Your task to perform on an android device: Open Chrome and go to settings Image 0: 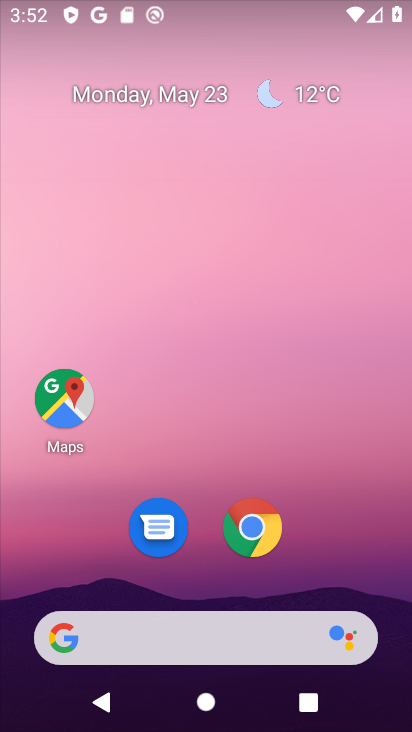
Step 0: press home button
Your task to perform on an android device: Open Chrome and go to settings Image 1: 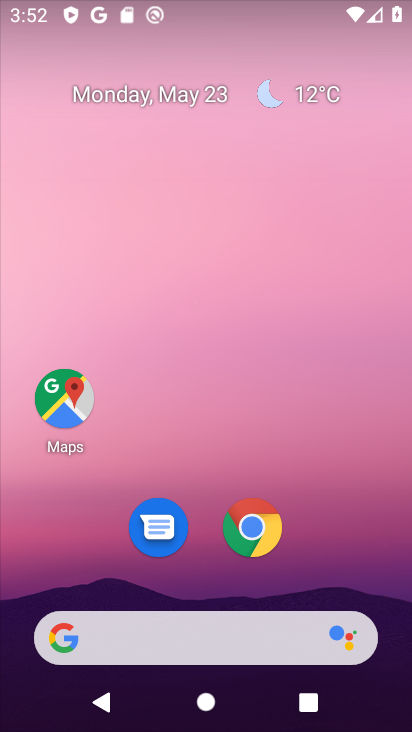
Step 1: drag from (200, 588) to (217, 22)
Your task to perform on an android device: Open Chrome and go to settings Image 2: 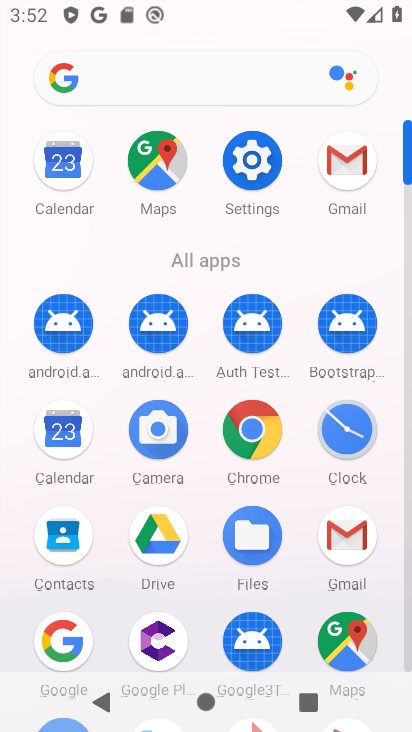
Step 2: click (252, 154)
Your task to perform on an android device: Open Chrome and go to settings Image 3: 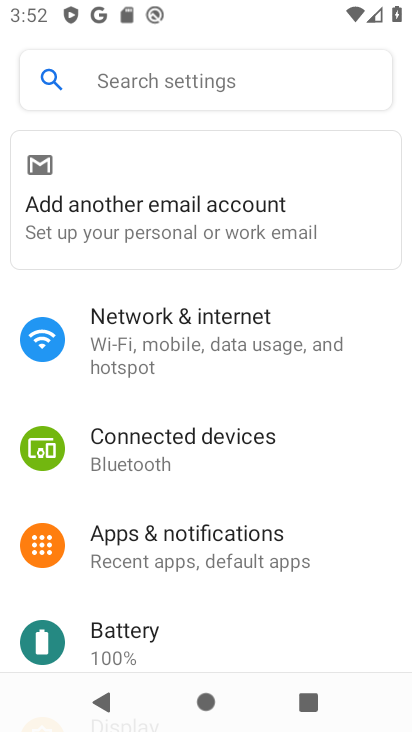
Step 3: press home button
Your task to perform on an android device: Open Chrome and go to settings Image 4: 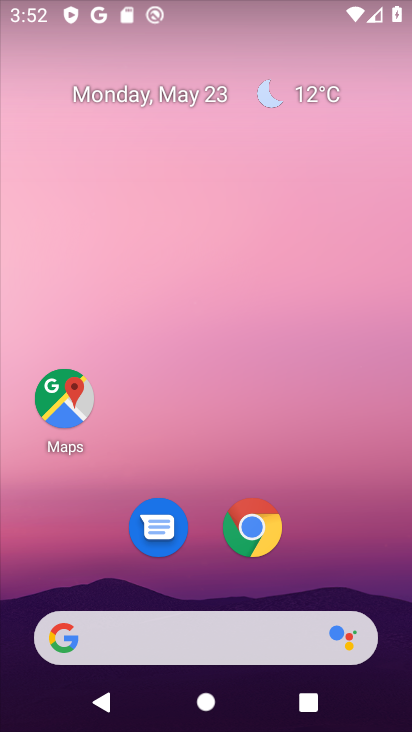
Step 4: click (246, 524)
Your task to perform on an android device: Open Chrome and go to settings Image 5: 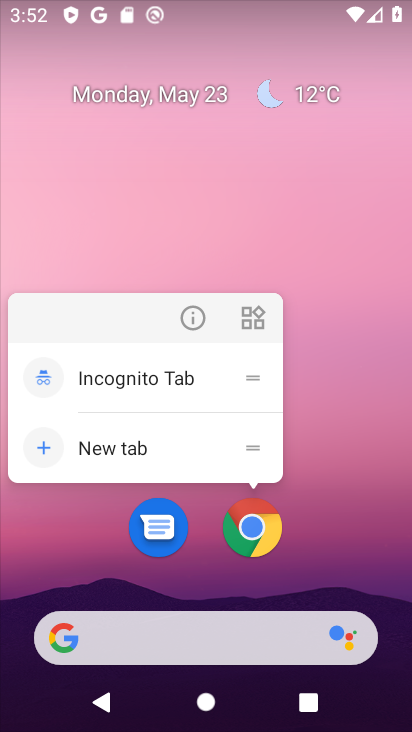
Step 5: click (249, 519)
Your task to perform on an android device: Open Chrome and go to settings Image 6: 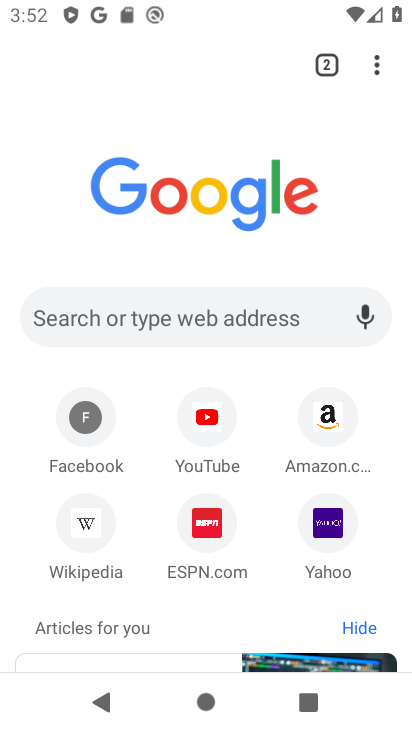
Step 6: click (376, 60)
Your task to perform on an android device: Open Chrome and go to settings Image 7: 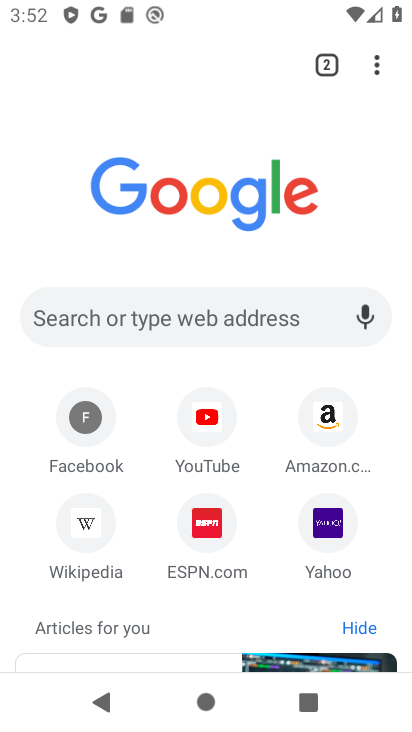
Step 7: click (376, 60)
Your task to perform on an android device: Open Chrome and go to settings Image 8: 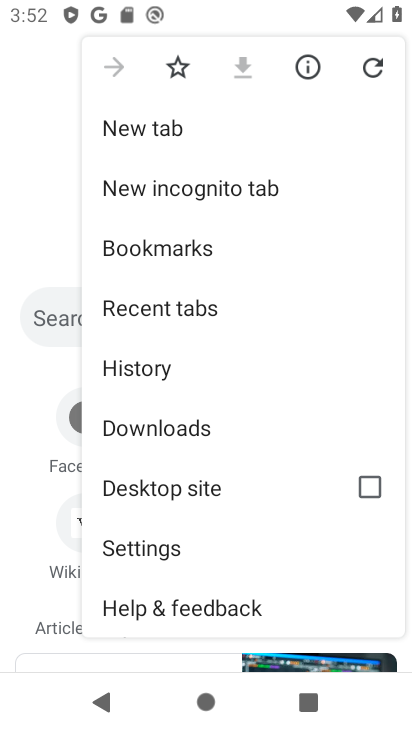
Step 8: click (186, 547)
Your task to perform on an android device: Open Chrome and go to settings Image 9: 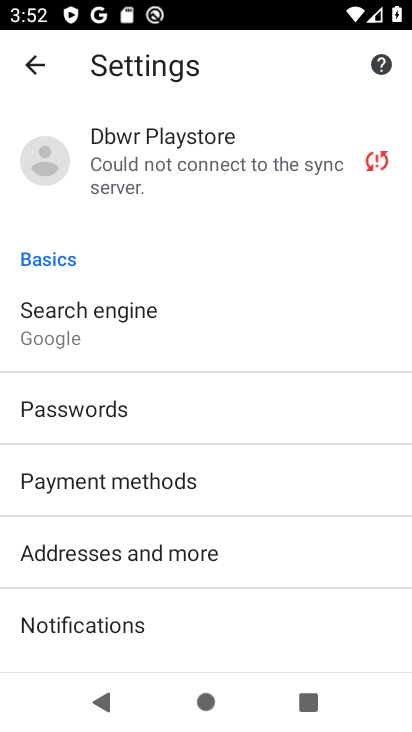
Step 9: task complete